Your task to perform on an android device: clear history in the chrome app Image 0: 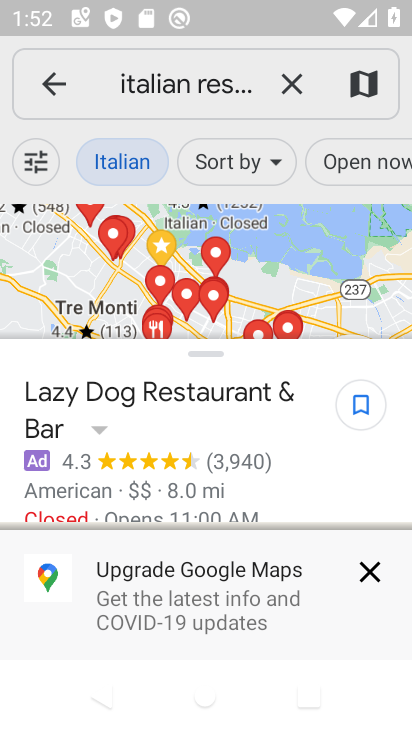
Step 0: press home button
Your task to perform on an android device: clear history in the chrome app Image 1: 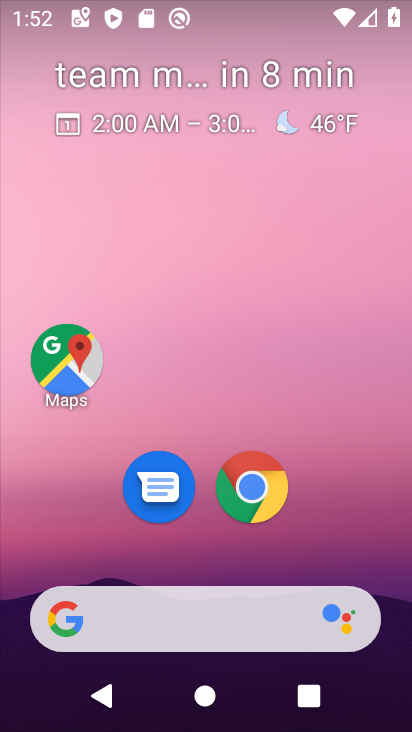
Step 1: click (248, 480)
Your task to perform on an android device: clear history in the chrome app Image 2: 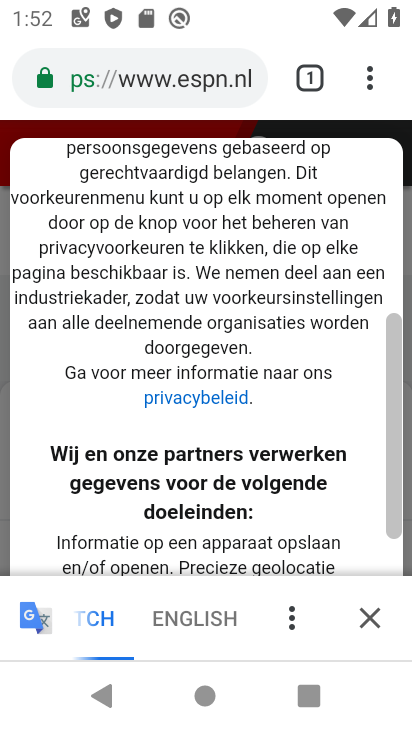
Step 2: drag from (370, 70) to (223, 182)
Your task to perform on an android device: clear history in the chrome app Image 3: 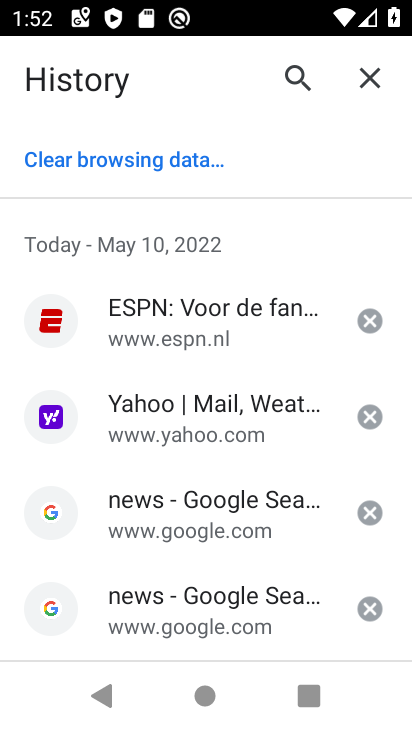
Step 3: click (195, 155)
Your task to perform on an android device: clear history in the chrome app Image 4: 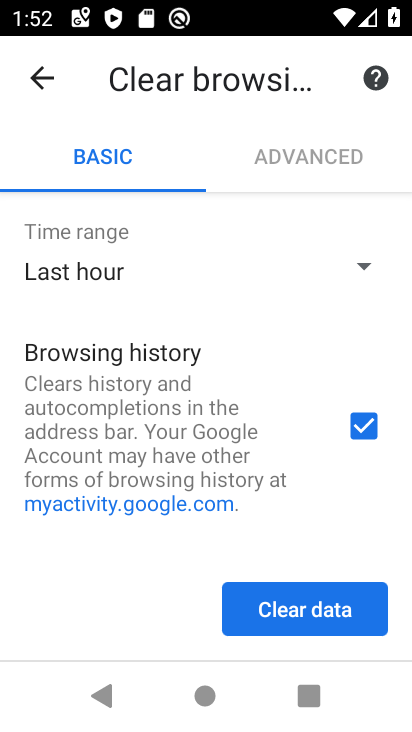
Step 4: click (303, 610)
Your task to perform on an android device: clear history in the chrome app Image 5: 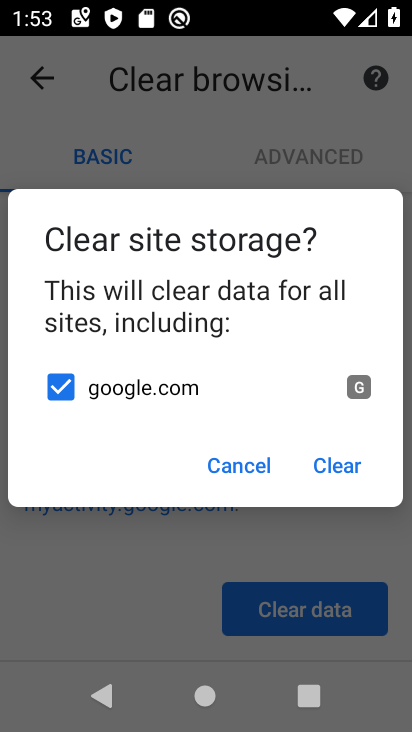
Step 5: click (244, 464)
Your task to perform on an android device: clear history in the chrome app Image 6: 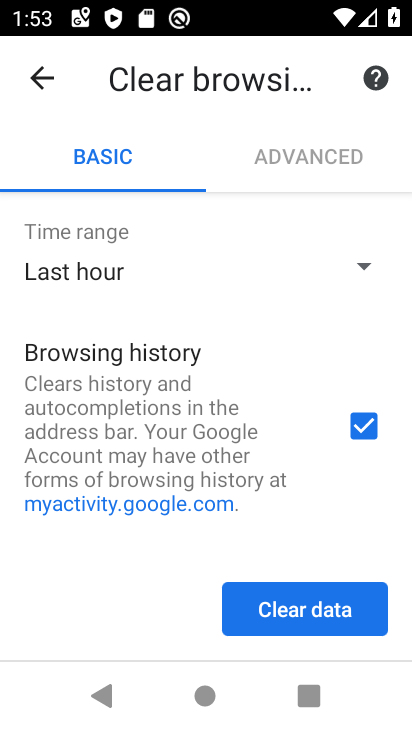
Step 6: click (321, 269)
Your task to perform on an android device: clear history in the chrome app Image 7: 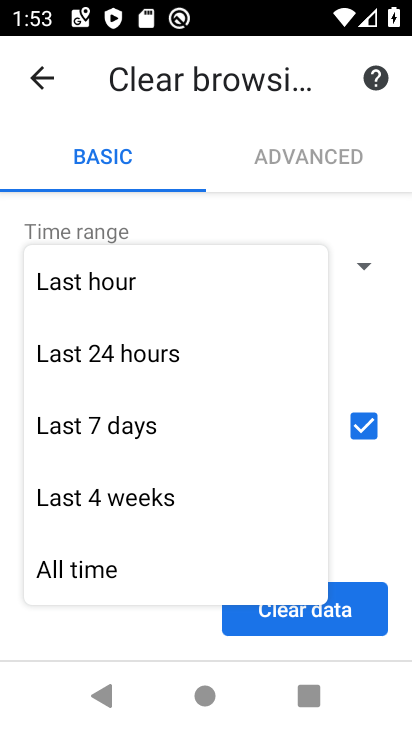
Step 7: click (128, 571)
Your task to perform on an android device: clear history in the chrome app Image 8: 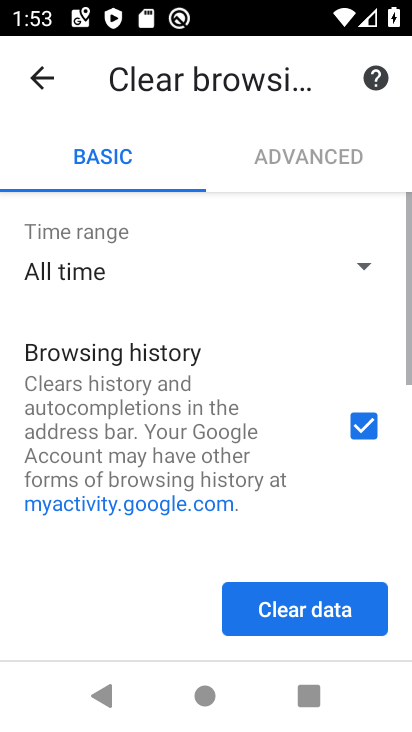
Step 8: click (280, 627)
Your task to perform on an android device: clear history in the chrome app Image 9: 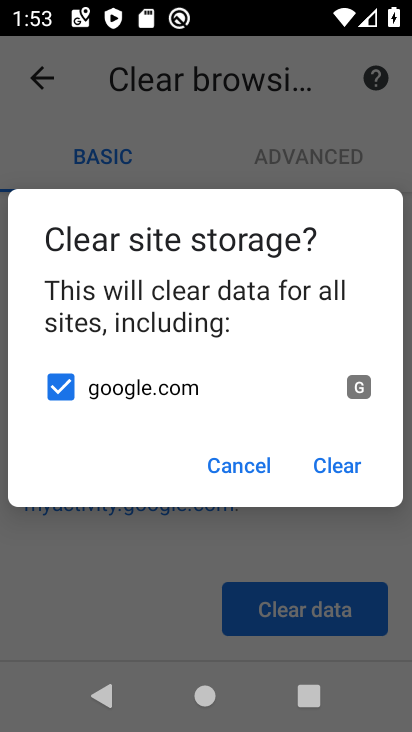
Step 9: click (368, 456)
Your task to perform on an android device: clear history in the chrome app Image 10: 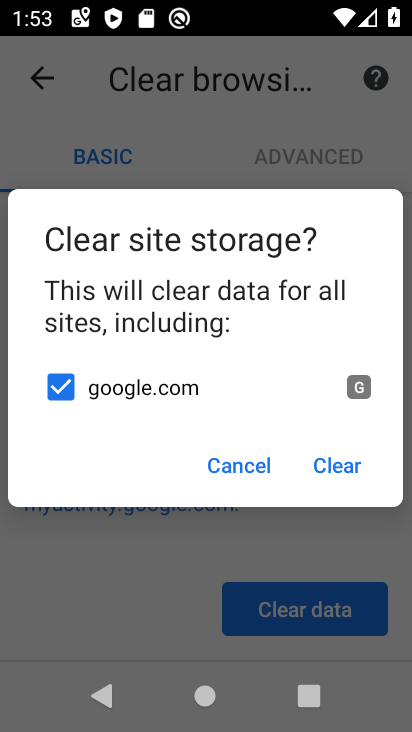
Step 10: click (365, 457)
Your task to perform on an android device: clear history in the chrome app Image 11: 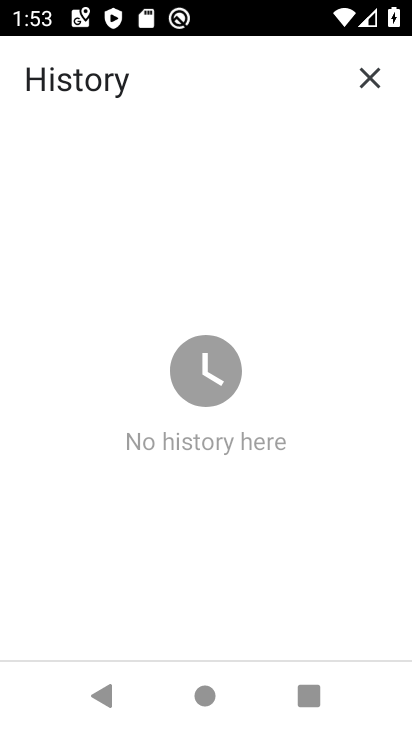
Step 11: task complete